Your task to perform on an android device: Go to Android settings Image 0: 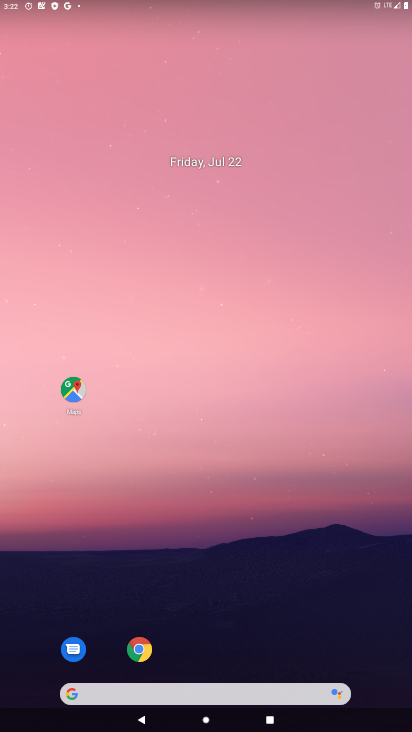
Step 0: drag from (294, 609) to (296, 112)
Your task to perform on an android device: Go to Android settings Image 1: 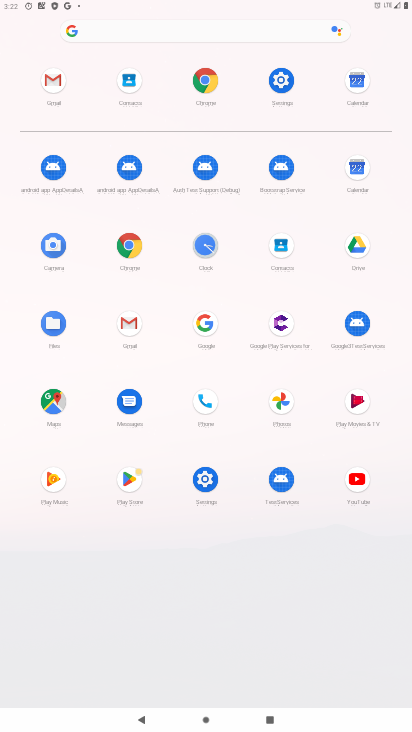
Step 1: click (285, 78)
Your task to perform on an android device: Go to Android settings Image 2: 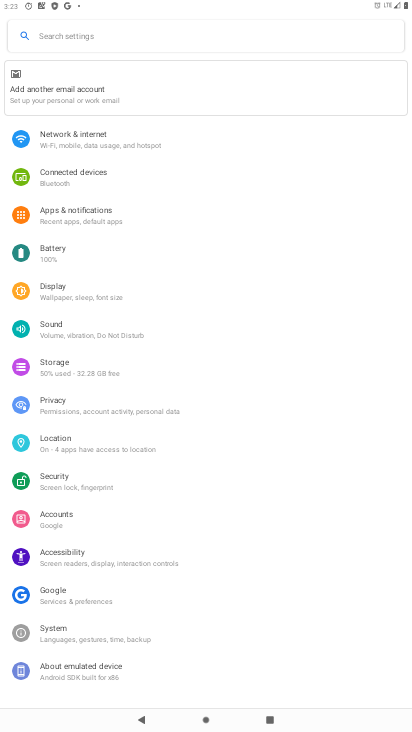
Step 2: task complete